Your task to perform on an android device: find snoozed emails in the gmail app Image 0: 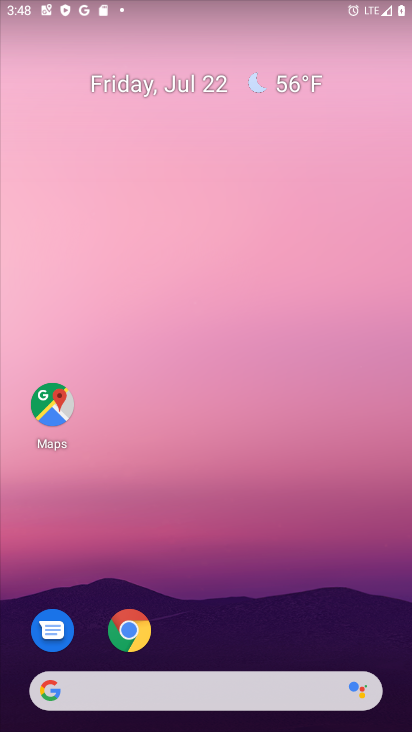
Step 0: drag from (225, 672) to (205, 124)
Your task to perform on an android device: find snoozed emails in the gmail app Image 1: 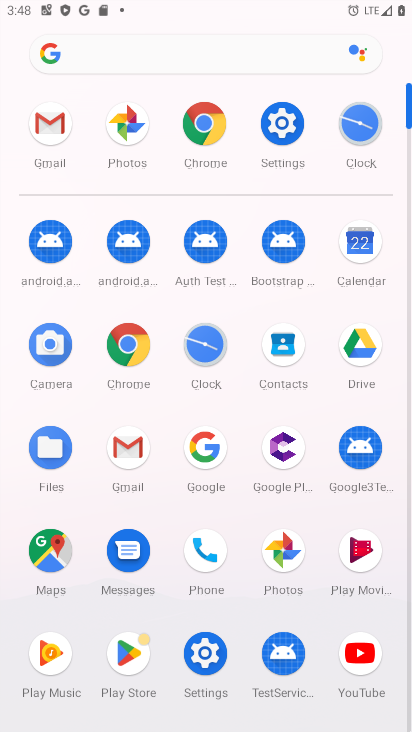
Step 1: click (144, 450)
Your task to perform on an android device: find snoozed emails in the gmail app Image 2: 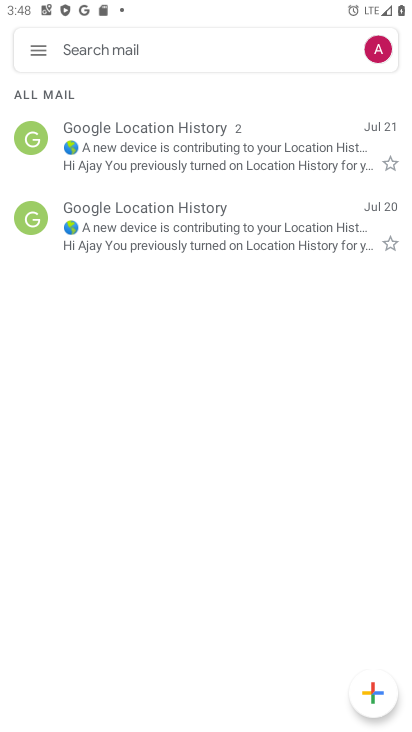
Step 2: click (46, 50)
Your task to perform on an android device: find snoozed emails in the gmail app Image 3: 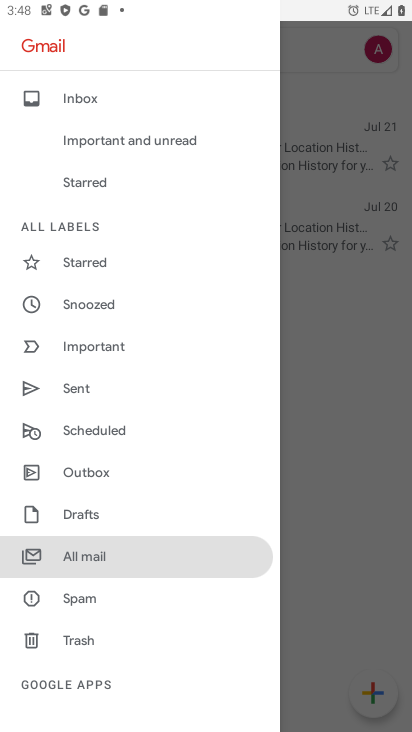
Step 3: click (97, 308)
Your task to perform on an android device: find snoozed emails in the gmail app Image 4: 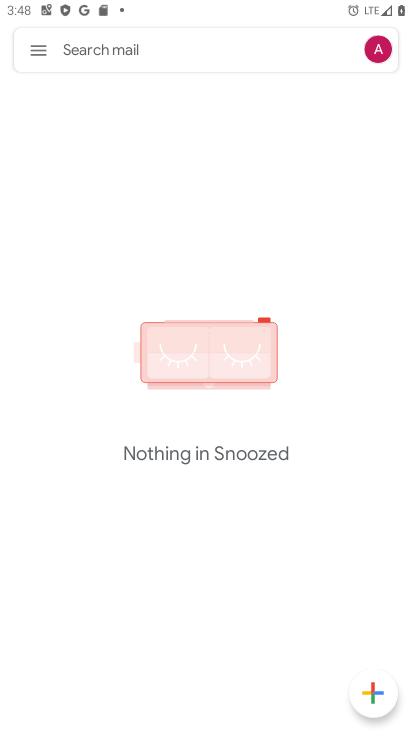
Step 4: task complete